Your task to perform on an android device: Clear the cart on ebay.com. Search for "logitech g933" on ebay.com, select the first entry, add it to the cart, then select checkout. Image 0: 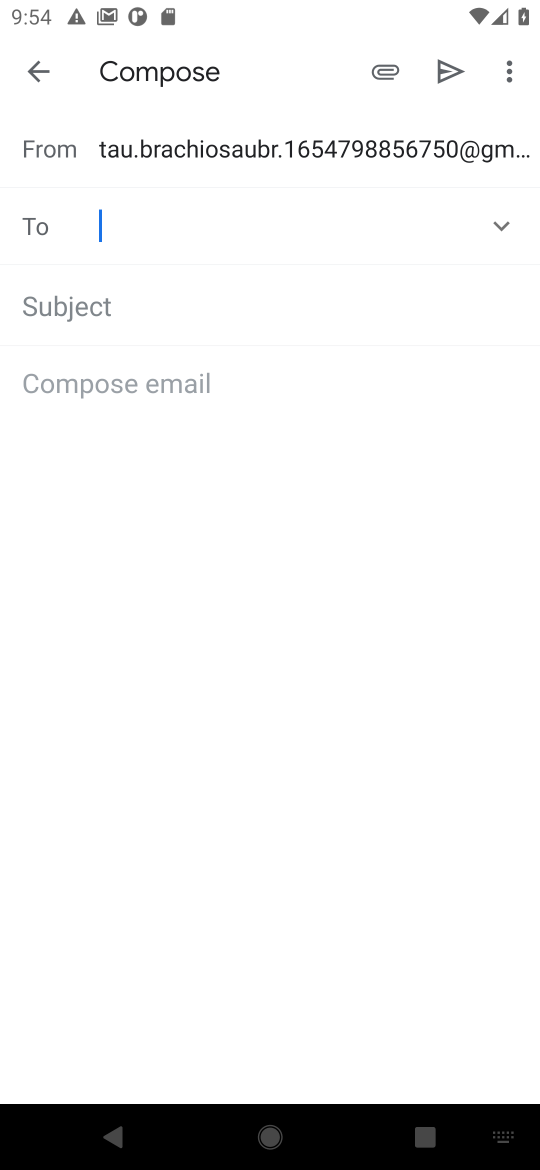
Step 0: press home button
Your task to perform on an android device: Clear the cart on ebay.com. Search for "logitech g933" on ebay.com, select the first entry, add it to the cart, then select checkout. Image 1: 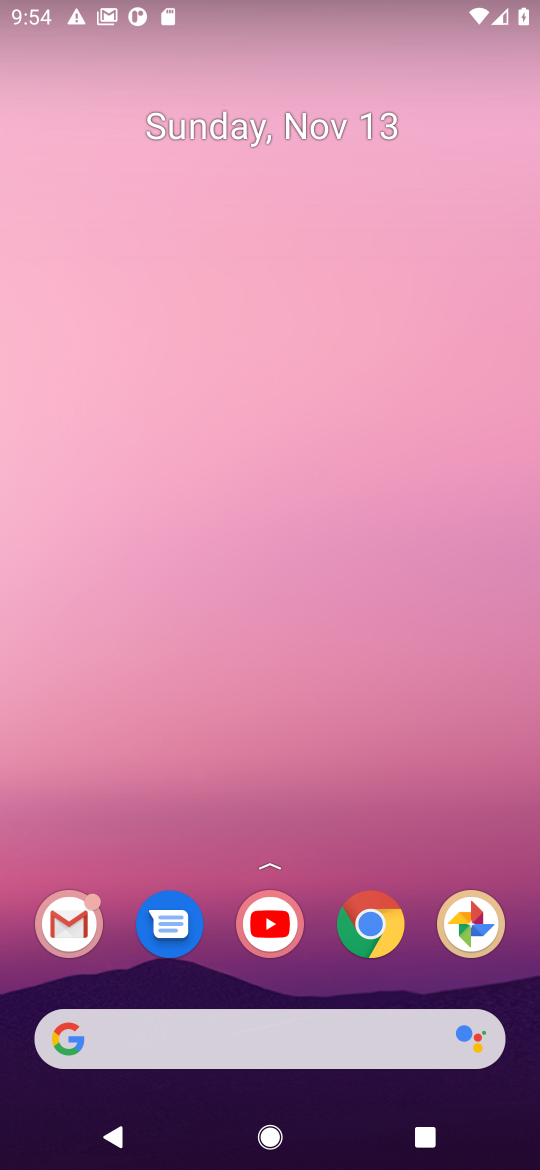
Step 1: click (366, 940)
Your task to perform on an android device: Clear the cart on ebay.com. Search for "logitech g933" on ebay.com, select the first entry, add it to the cart, then select checkout. Image 2: 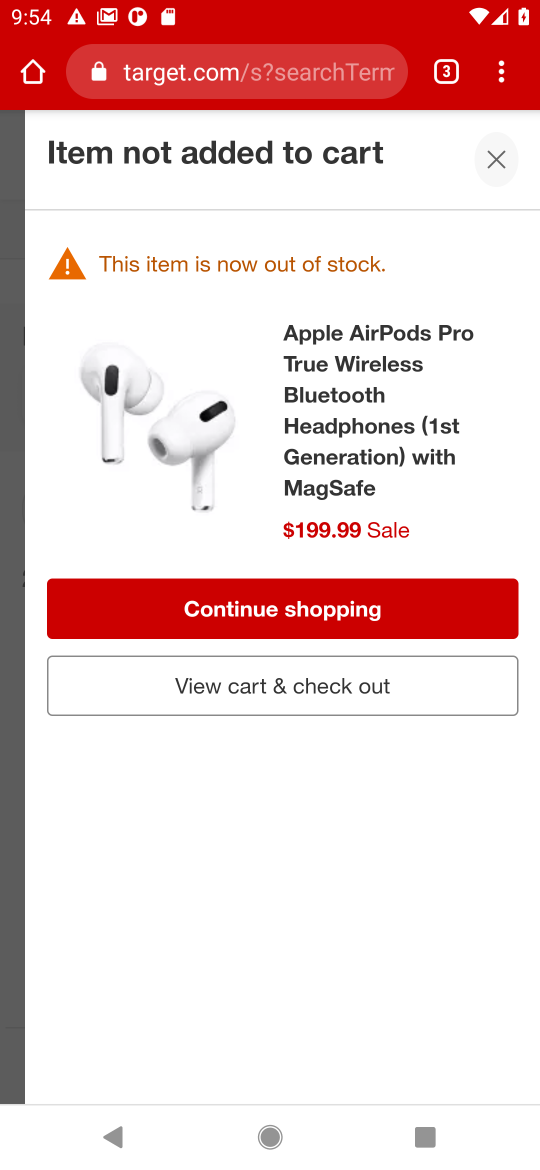
Step 2: click (227, 76)
Your task to perform on an android device: Clear the cart on ebay.com. Search for "logitech g933" on ebay.com, select the first entry, add it to the cart, then select checkout. Image 3: 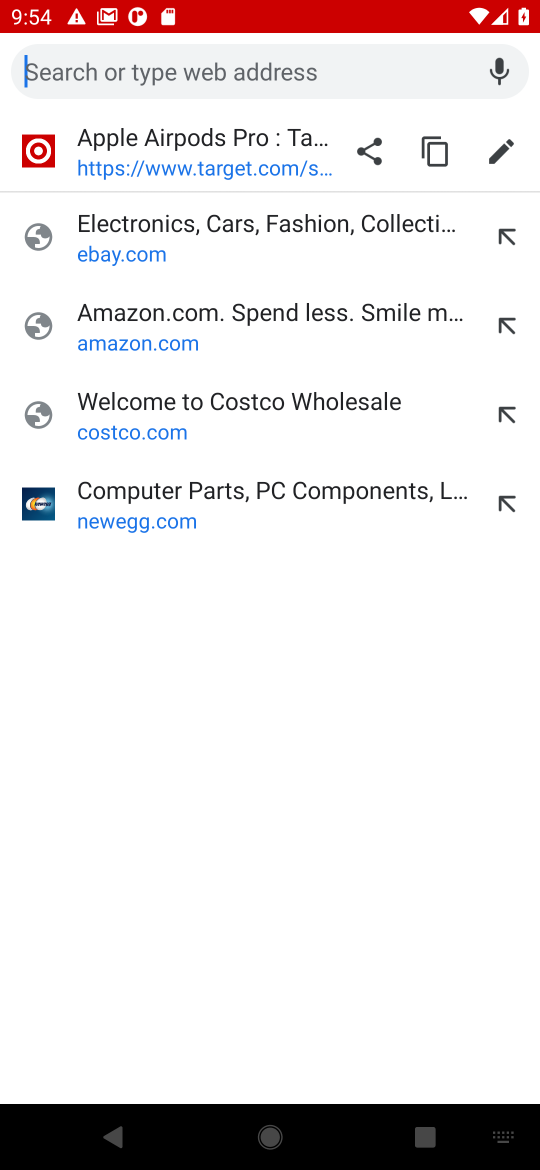
Step 3: click (150, 243)
Your task to perform on an android device: Clear the cart on ebay.com. Search for "logitech g933" on ebay.com, select the first entry, add it to the cart, then select checkout. Image 4: 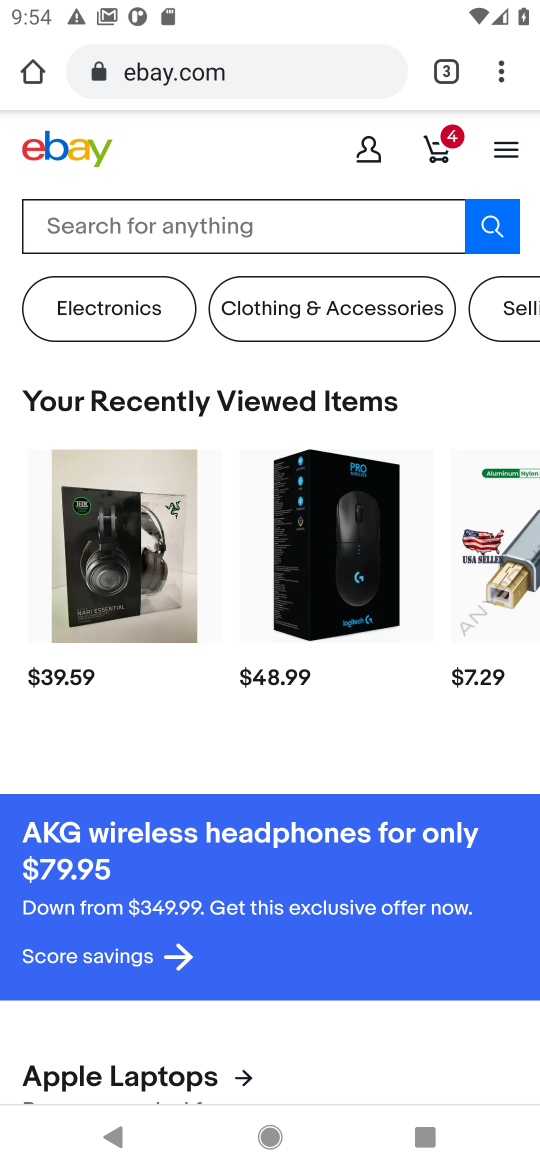
Step 4: click (440, 143)
Your task to perform on an android device: Clear the cart on ebay.com. Search for "logitech g933" on ebay.com, select the first entry, add it to the cart, then select checkout. Image 5: 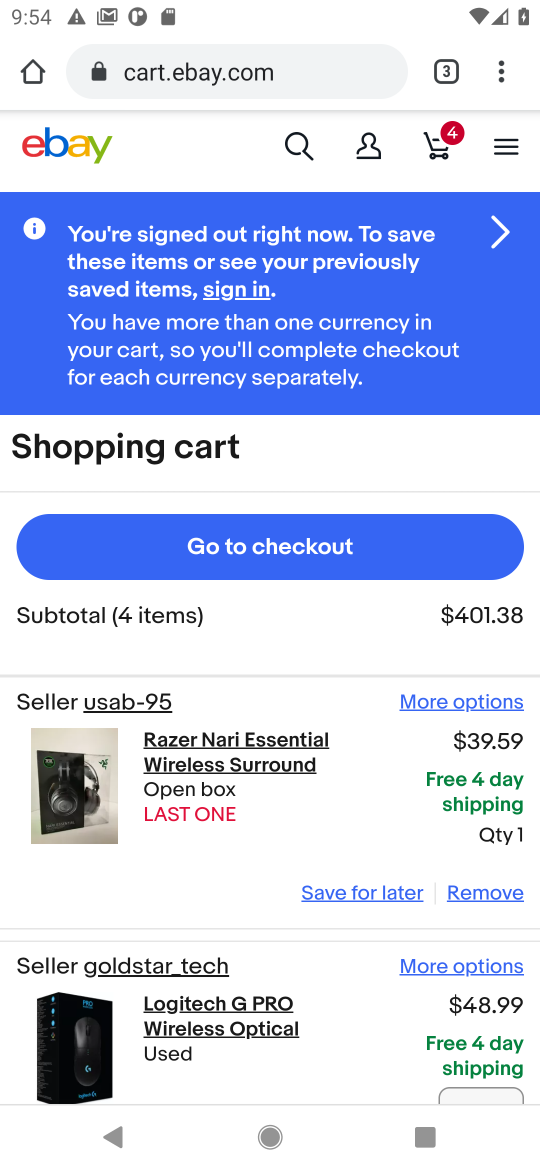
Step 5: click (484, 894)
Your task to perform on an android device: Clear the cart on ebay.com. Search for "logitech g933" on ebay.com, select the first entry, add it to the cart, then select checkout. Image 6: 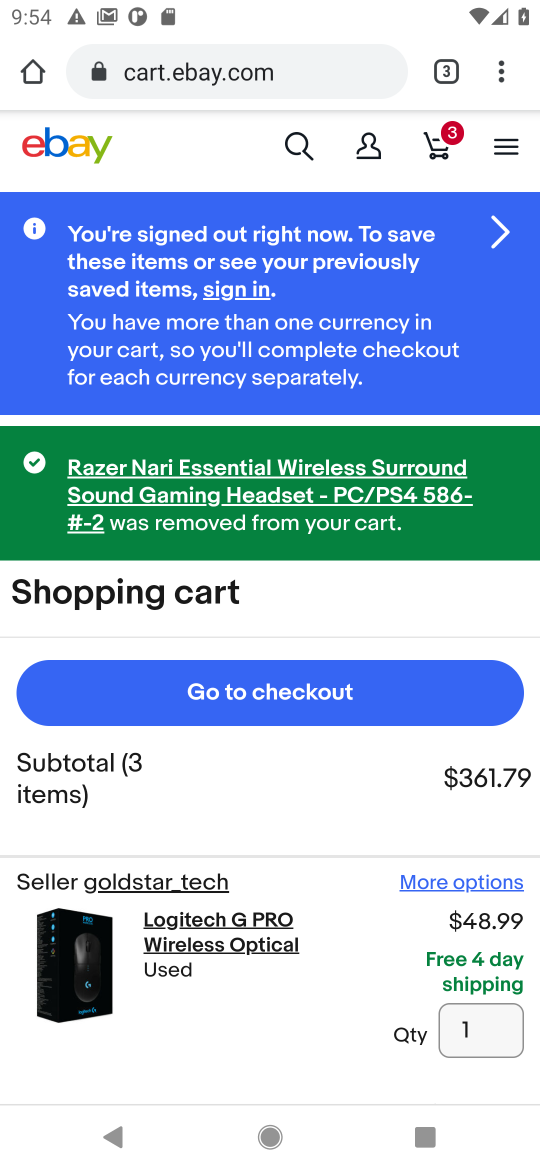
Step 6: drag from (296, 977) to (290, 626)
Your task to perform on an android device: Clear the cart on ebay.com. Search for "logitech g933" on ebay.com, select the first entry, add it to the cart, then select checkout. Image 7: 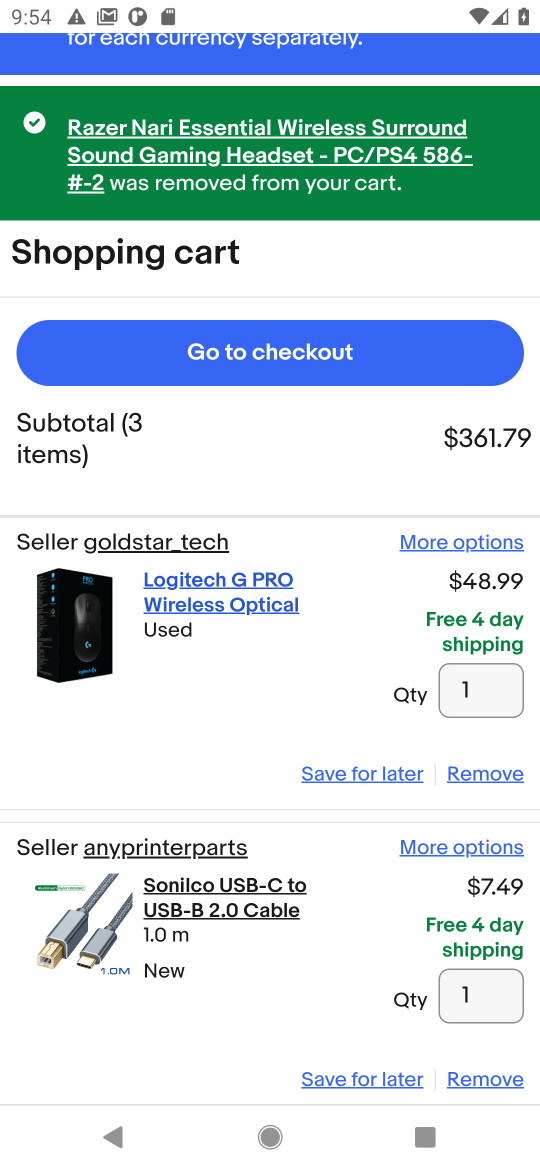
Step 7: click (471, 783)
Your task to perform on an android device: Clear the cart on ebay.com. Search for "logitech g933" on ebay.com, select the first entry, add it to the cart, then select checkout. Image 8: 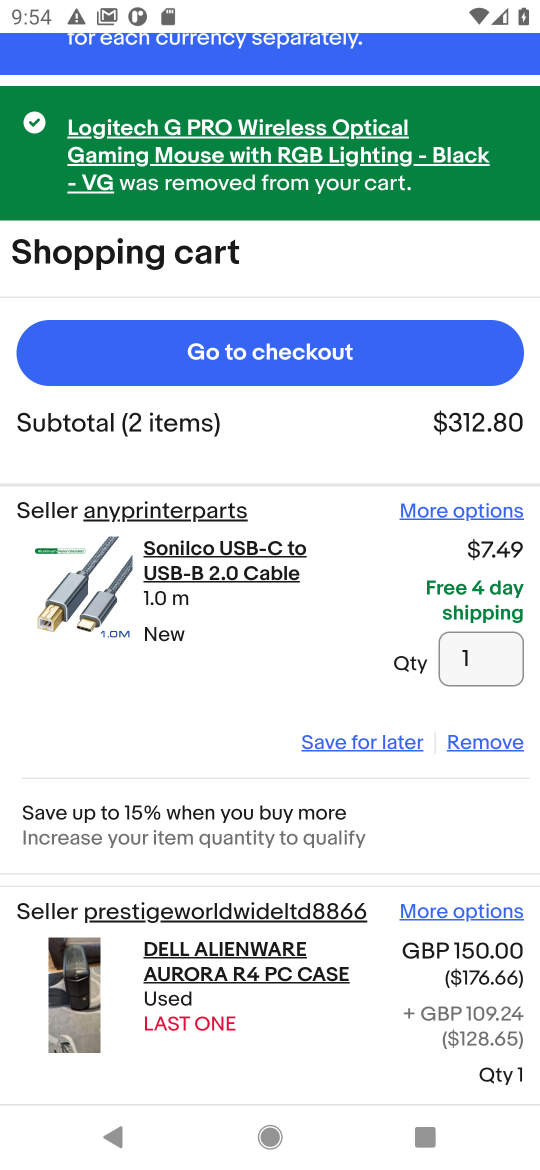
Step 8: click (483, 746)
Your task to perform on an android device: Clear the cart on ebay.com. Search for "logitech g933" on ebay.com, select the first entry, add it to the cart, then select checkout. Image 9: 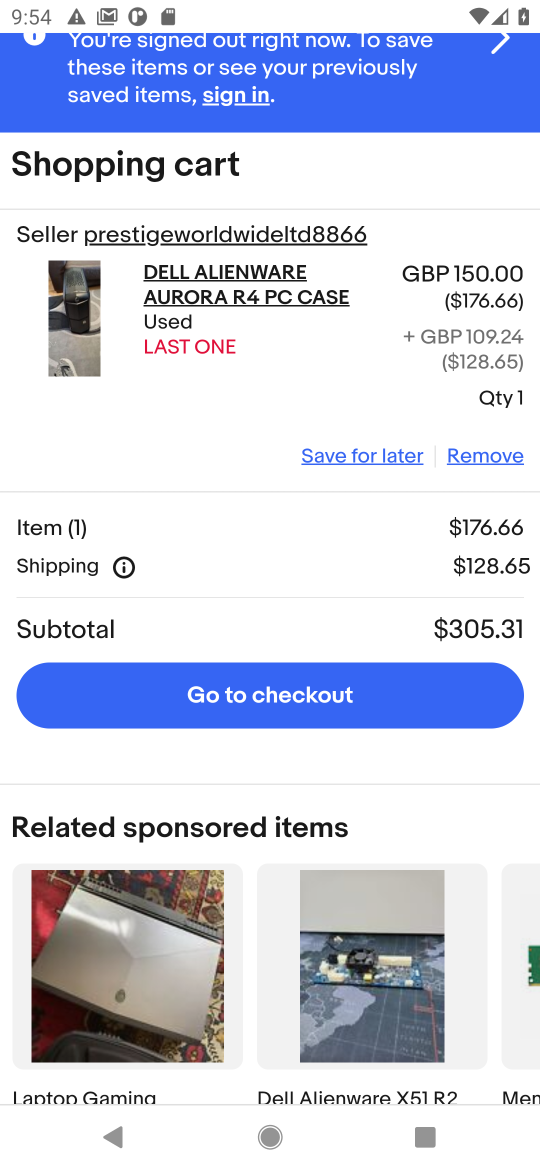
Step 9: click (484, 465)
Your task to perform on an android device: Clear the cart on ebay.com. Search for "logitech g933" on ebay.com, select the first entry, add it to the cart, then select checkout. Image 10: 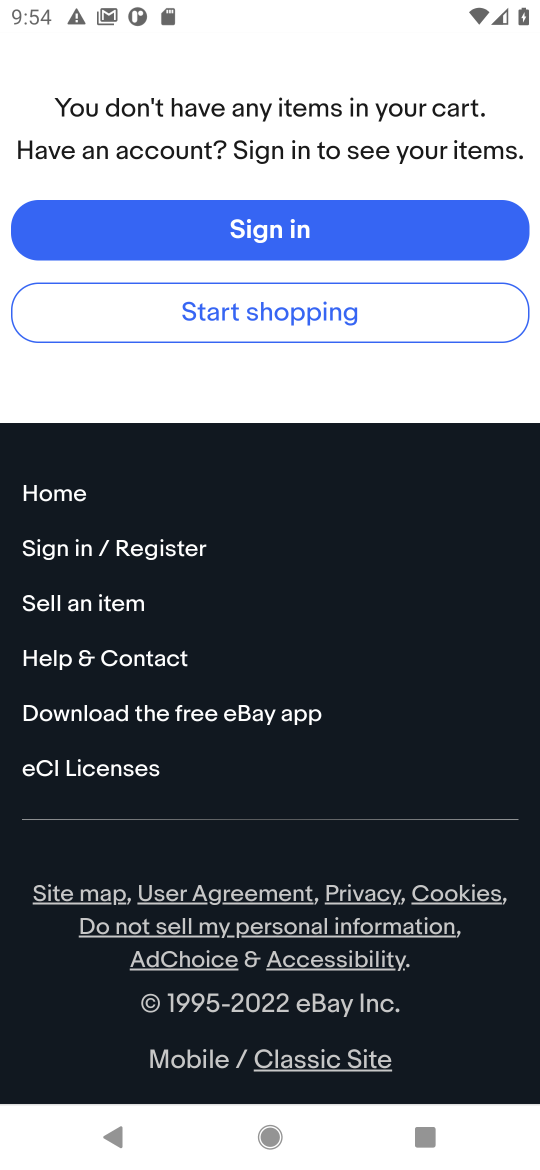
Step 10: drag from (325, 450) to (357, 779)
Your task to perform on an android device: Clear the cart on ebay.com. Search for "logitech g933" on ebay.com, select the first entry, add it to the cart, then select checkout. Image 11: 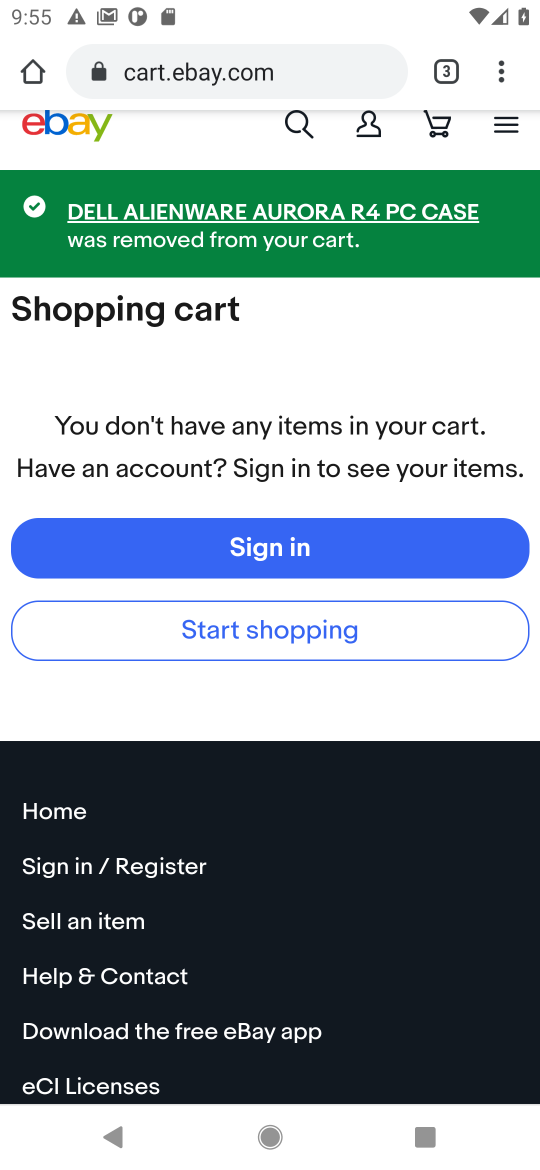
Step 11: click (305, 132)
Your task to perform on an android device: Clear the cart on ebay.com. Search for "logitech g933" on ebay.com, select the first entry, add it to the cart, then select checkout. Image 12: 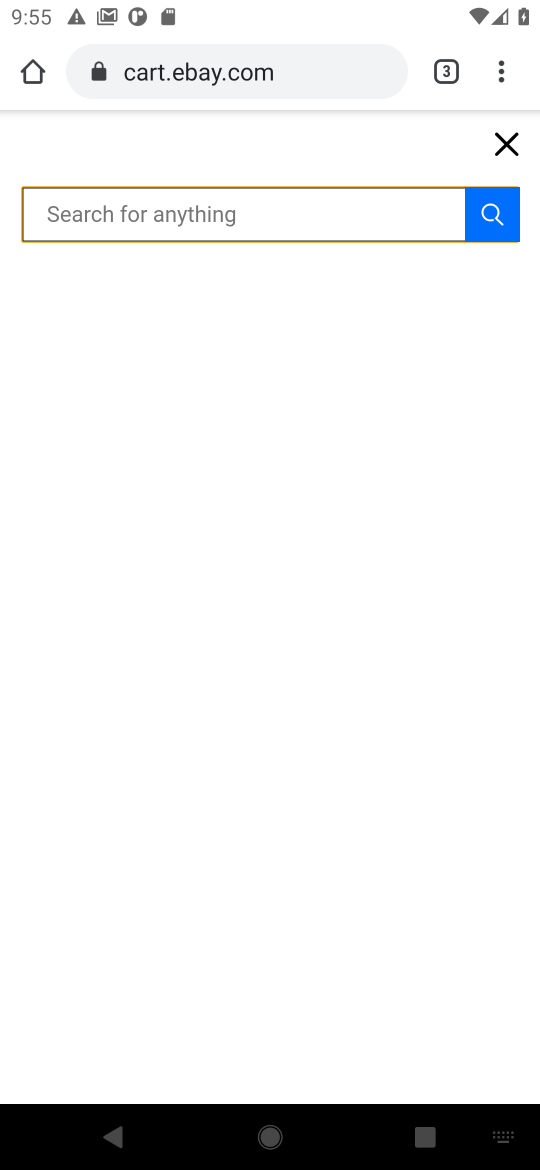
Step 12: type "logitech g933"
Your task to perform on an android device: Clear the cart on ebay.com. Search for "logitech g933" on ebay.com, select the first entry, add it to the cart, then select checkout. Image 13: 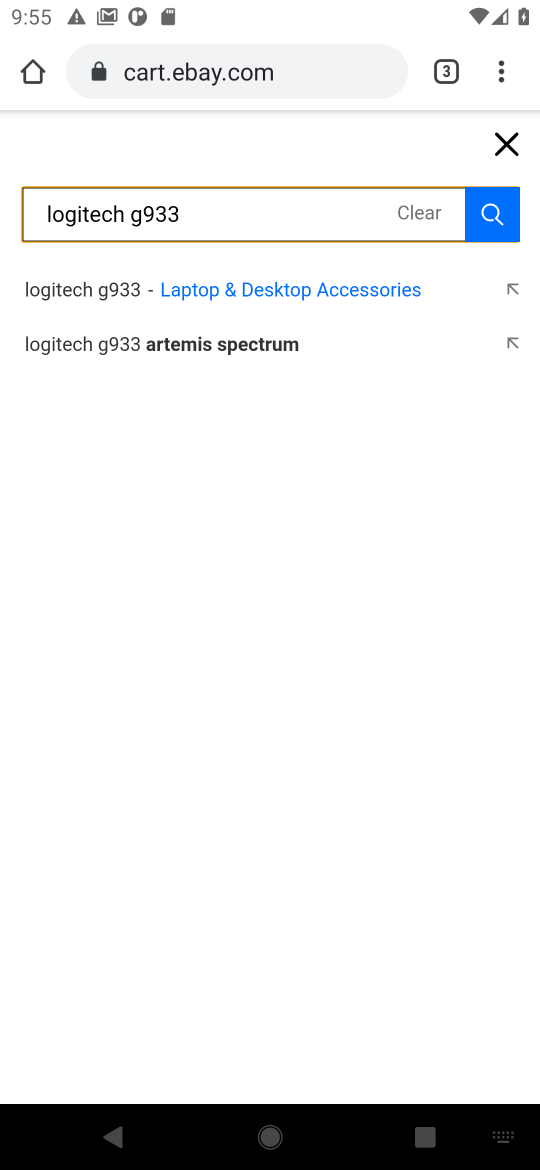
Step 13: click (492, 215)
Your task to perform on an android device: Clear the cart on ebay.com. Search for "logitech g933" on ebay.com, select the first entry, add it to the cart, then select checkout. Image 14: 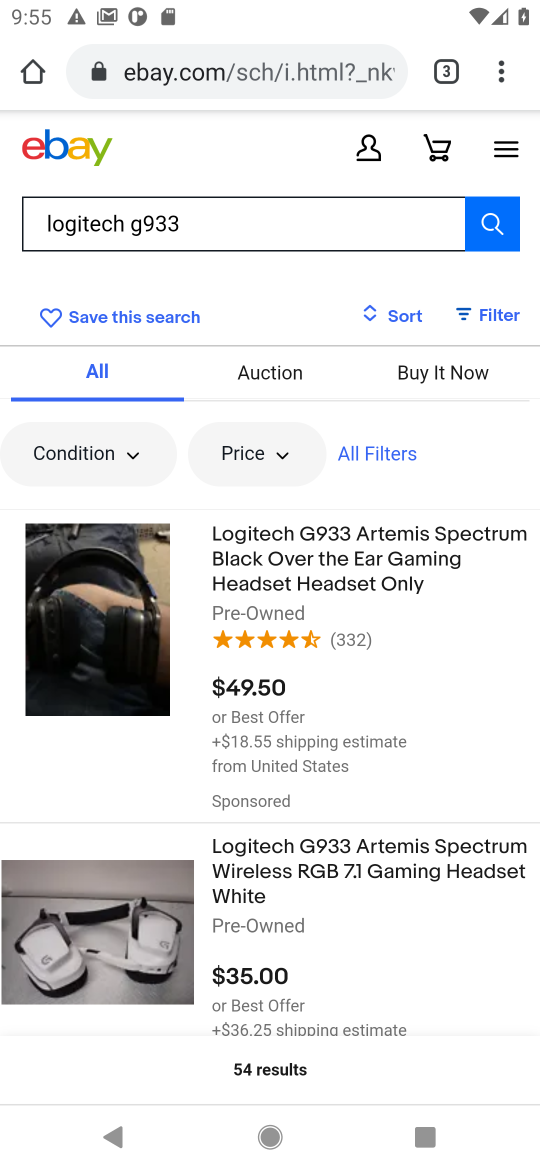
Step 14: click (122, 644)
Your task to perform on an android device: Clear the cart on ebay.com. Search for "logitech g933" on ebay.com, select the first entry, add it to the cart, then select checkout. Image 15: 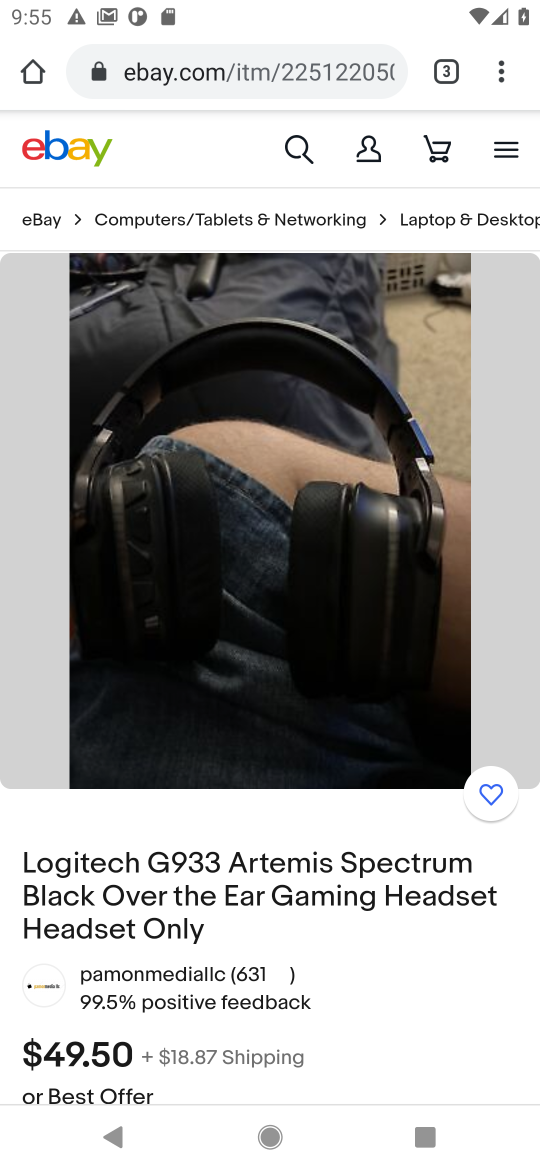
Step 15: drag from (266, 759) to (213, 267)
Your task to perform on an android device: Clear the cart on ebay.com. Search for "logitech g933" on ebay.com, select the first entry, add it to the cart, then select checkout. Image 16: 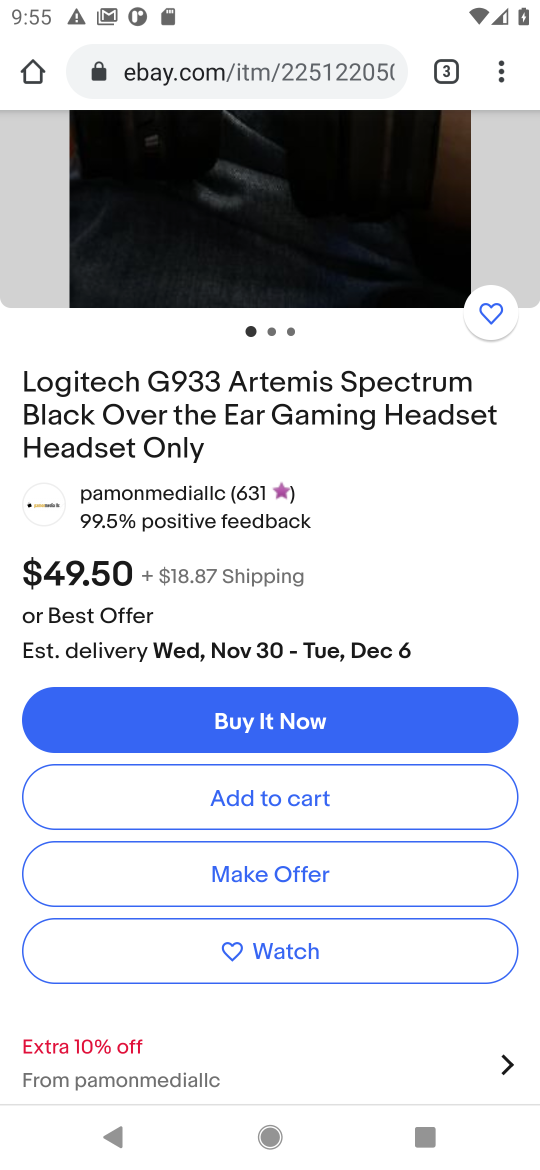
Step 16: drag from (339, 904) to (335, 611)
Your task to perform on an android device: Clear the cart on ebay.com. Search for "logitech g933" on ebay.com, select the first entry, add it to the cart, then select checkout. Image 17: 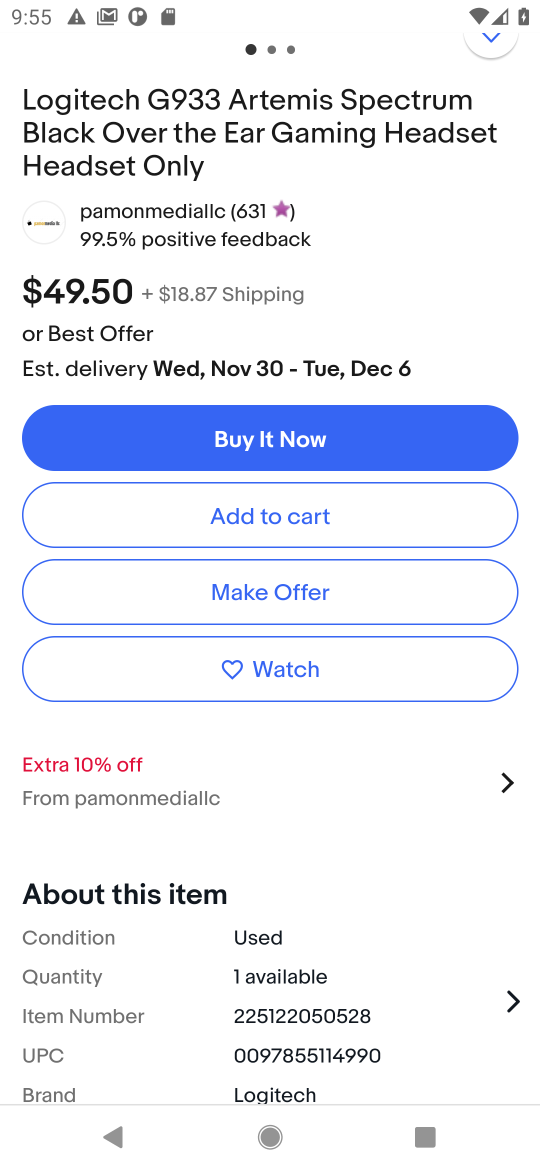
Step 17: click (201, 527)
Your task to perform on an android device: Clear the cart on ebay.com. Search for "logitech g933" on ebay.com, select the first entry, add it to the cart, then select checkout. Image 18: 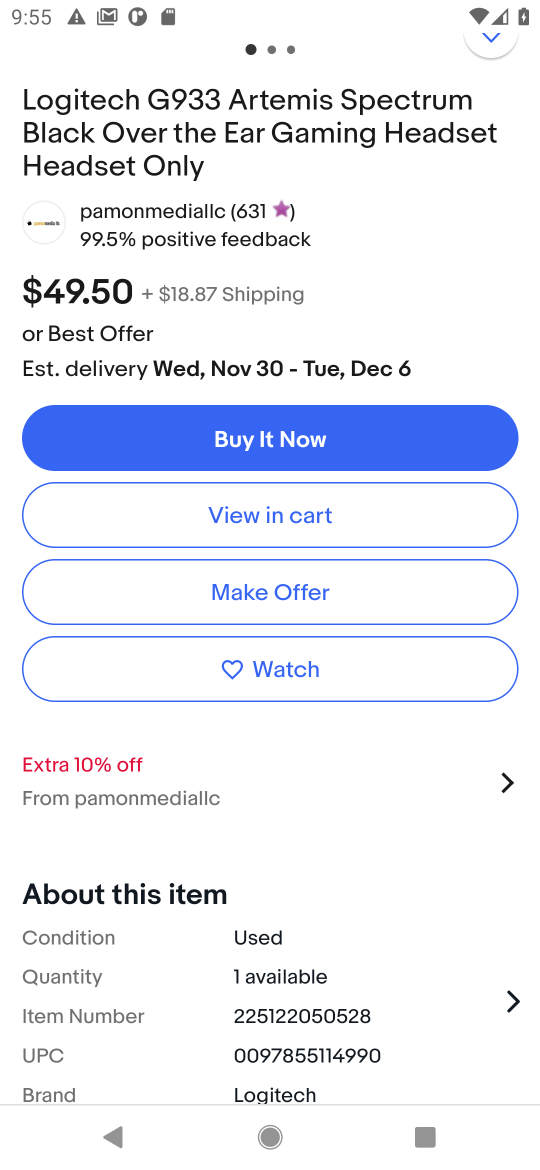
Step 18: click (223, 518)
Your task to perform on an android device: Clear the cart on ebay.com. Search for "logitech g933" on ebay.com, select the first entry, add it to the cart, then select checkout. Image 19: 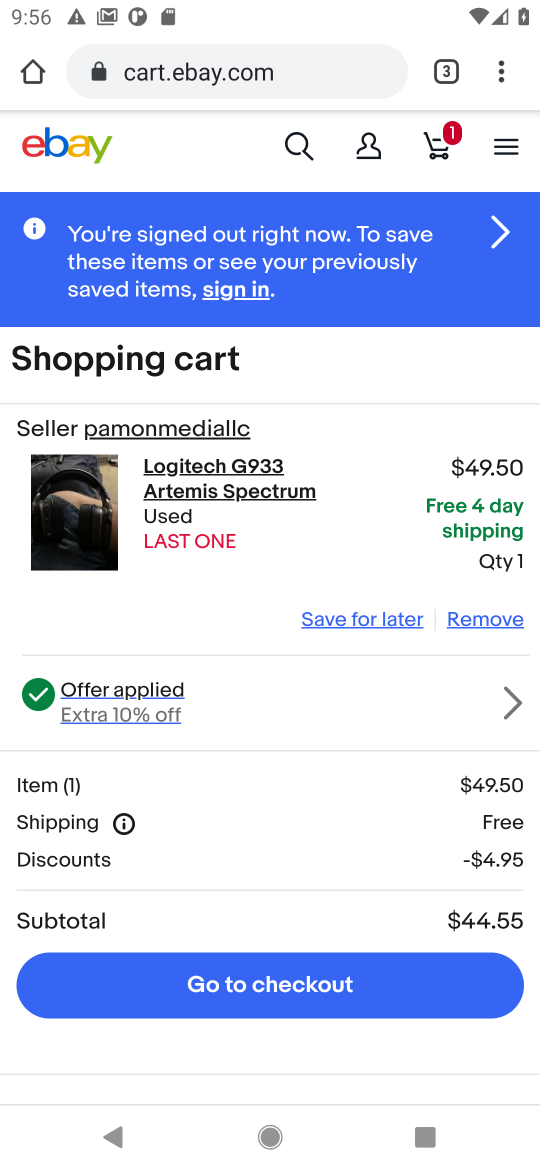
Step 19: click (256, 986)
Your task to perform on an android device: Clear the cart on ebay.com. Search for "logitech g933" on ebay.com, select the first entry, add it to the cart, then select checkout. Image 20: 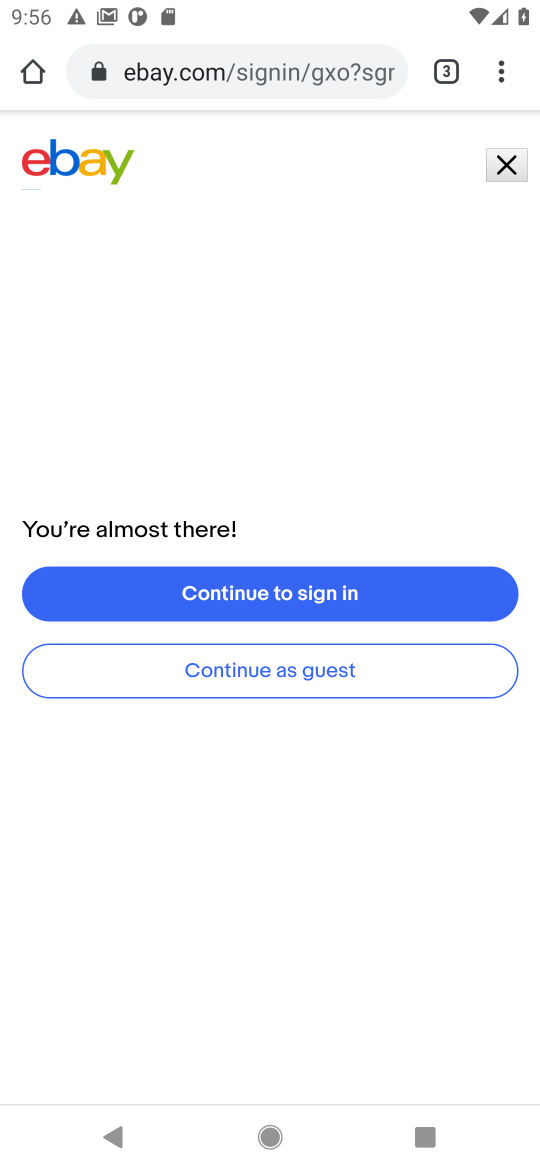
Step 20: task complete